Your task to perform on an android device: Open sound settings Image 0: 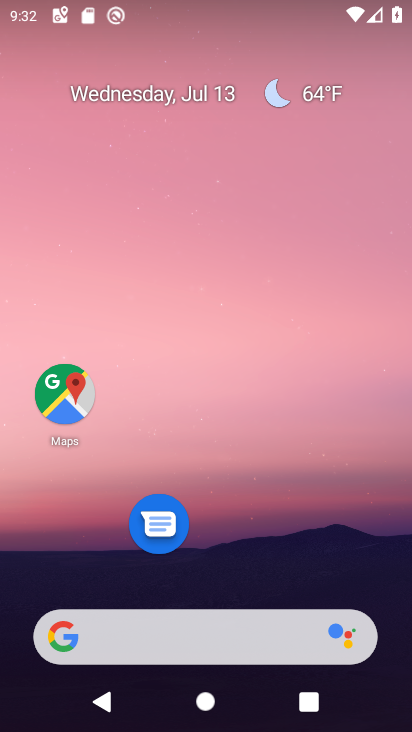
Step 0: drag from (219, 568) to (111, 114)
Your task to perform on an android device: Open sound settings Image 1: 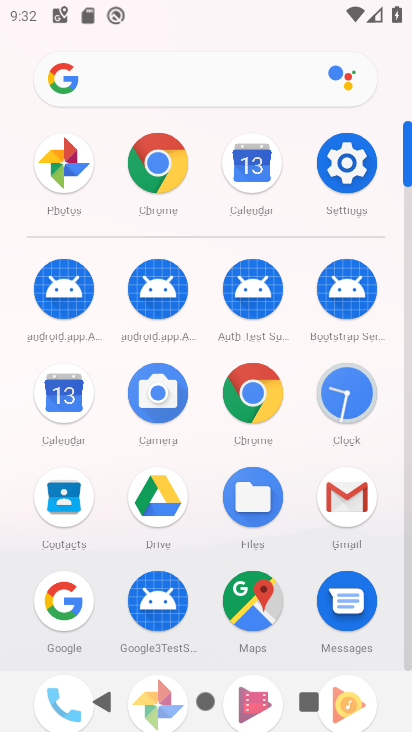
Step 1: click (333, 156)
Your task to perform on an android device: Open sound settings Image 2: 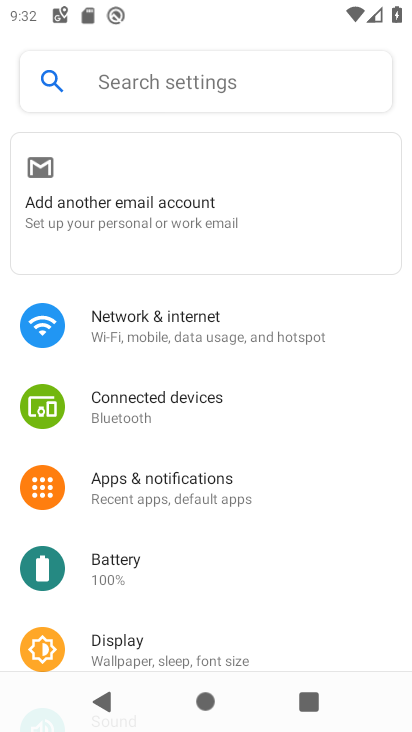
Step 2: drag from (328, 578) to (243, 191)
Your task to perform on an android device: Open sound settings Image 3: 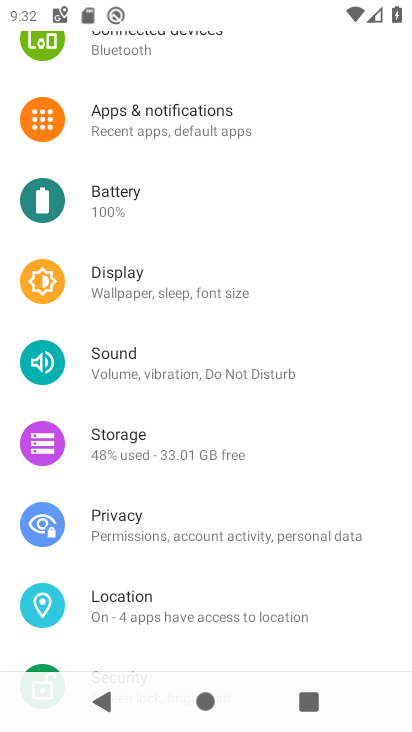
Step 3: click (181, 352)
Your task to perform on an android device: Open sound settings Image 4: 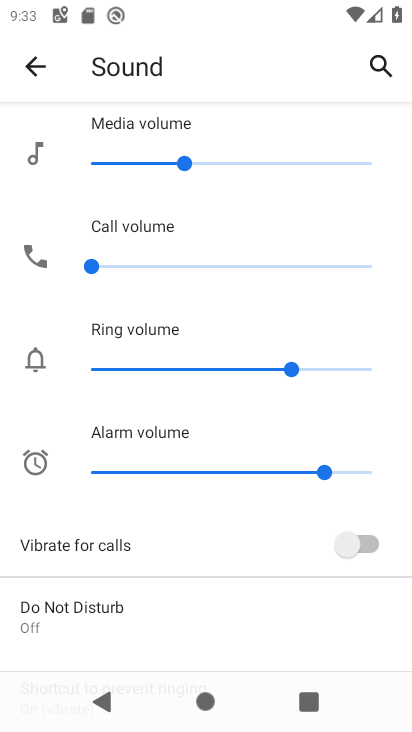
Step 4: task complete